Your task to perform on an android device: refresh tabs in the chrome app Image 0: 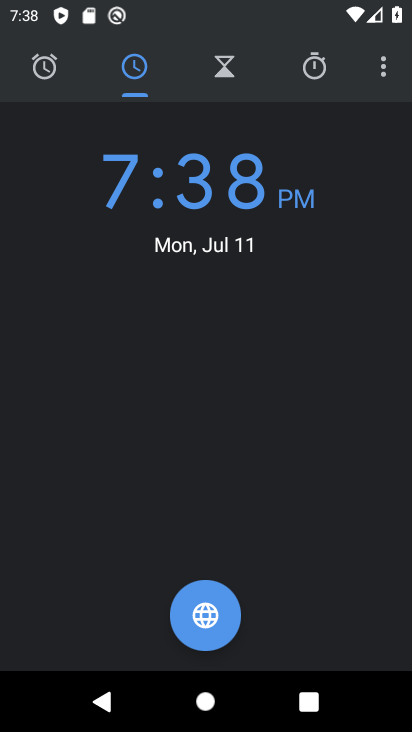
Step 0: press home button
Your task to perform on an android device: refresh tabs in the chrome app Image 1: 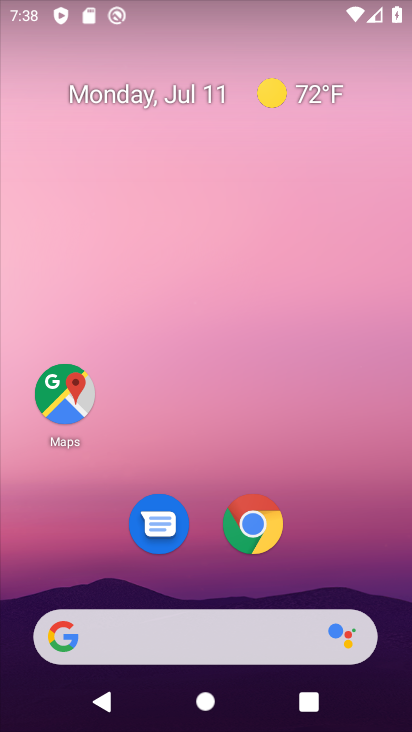
Step 1: click (261, 529)
Your task to perform on an android device: refresh tabs in the chrome app Image 2: 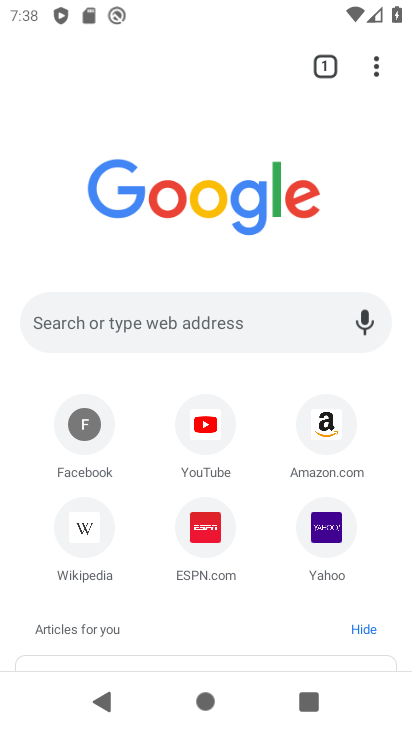
Step 2: click (373, 71)
Your task to perform on an android device: refresh tabs in the chrome app Image 3: 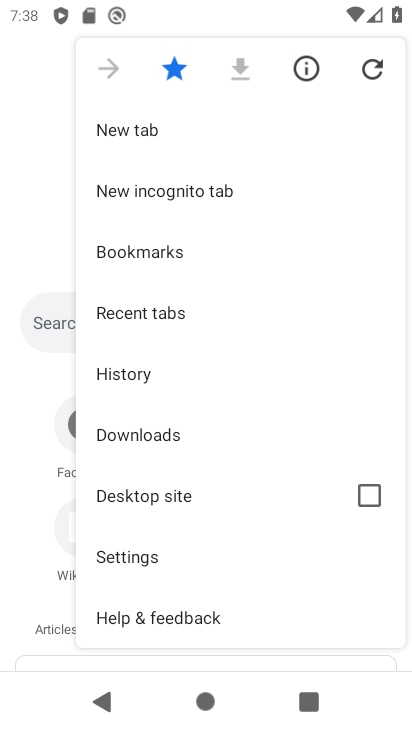
Step 3: click (373, 71)
Your task to perform on an android device: refresh tabs in the chrome app Image 4: 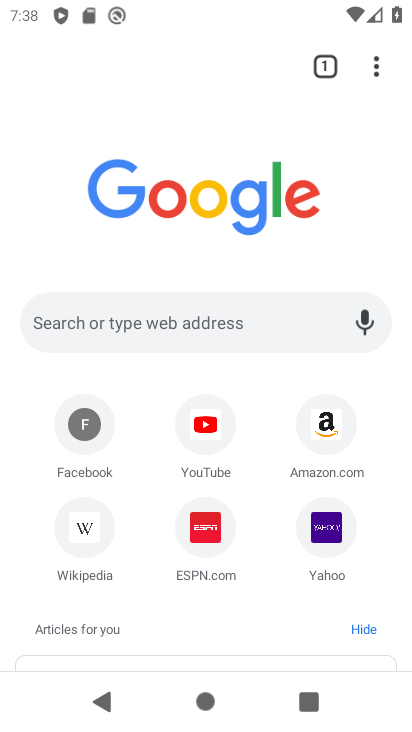
Step 4: task complete